Your task to perform on an android device: turn on airplane mode Image 0: 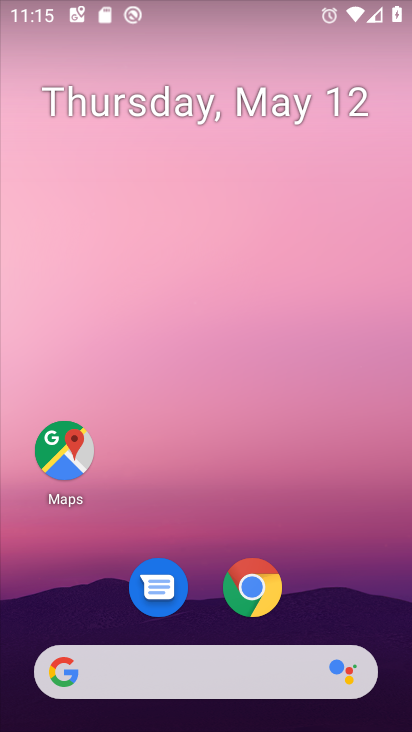
Step 0: drag from (285, 9) to (281, 566)
Your task to perform on an android device: turn on airplane mode Image 1: 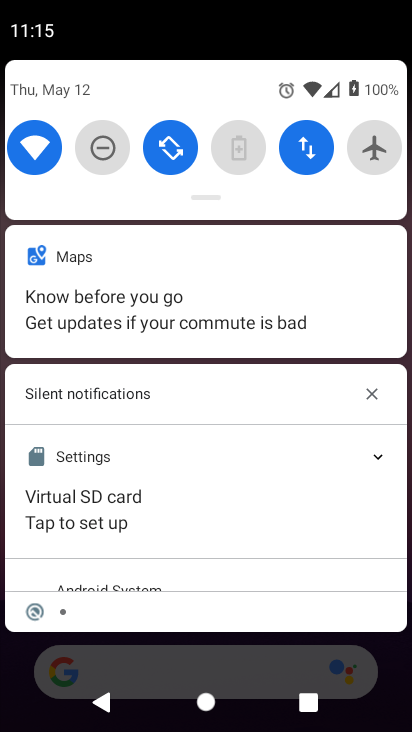
Step 1: click (369, 165)
Your task to perform on an android device: turn on airplane mode Image 2: 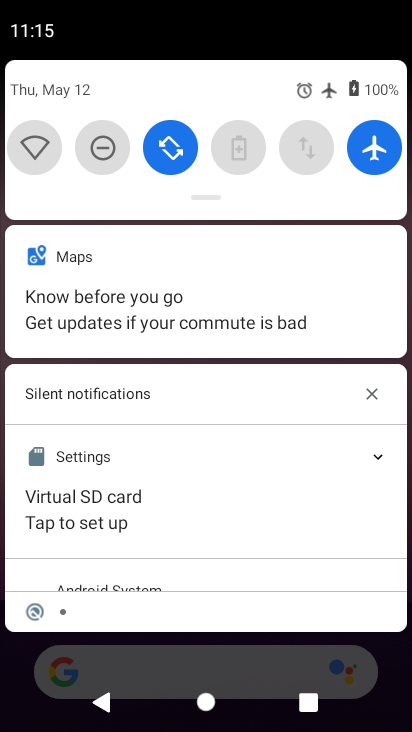
Step 2: task complete